Your task to perform on an android device: change the clock display to show seconds Image 0: 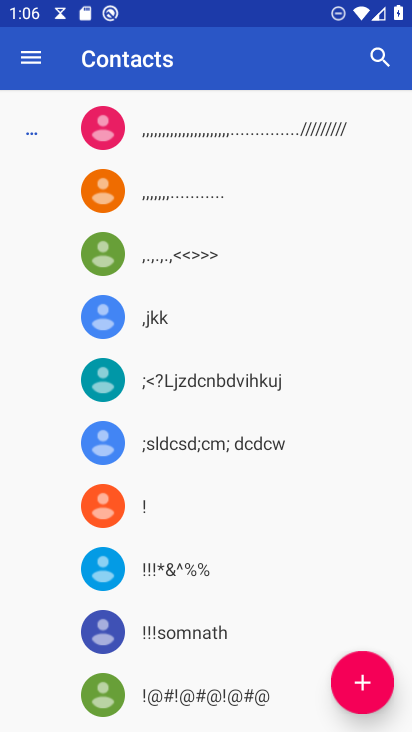
Step 0: press back button
Your task to perform on an android device: change the clock display to show seconds Image 1: 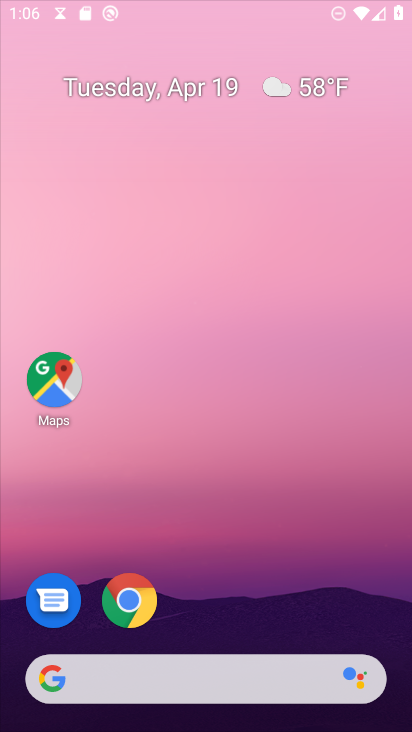
Step 1: press back button
Your task to perform on an android device: change the clock display to show seconds Image 2: 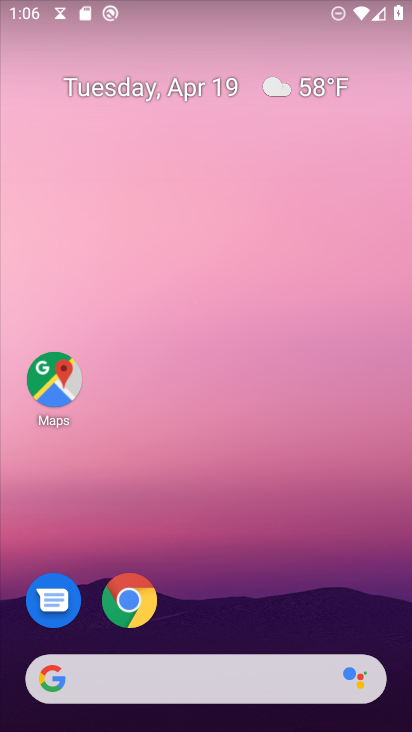
Step 2: drag from (175, 701) to (153, 210)
Your task to perform on an android device: change the clock display to show seconds Image 3: 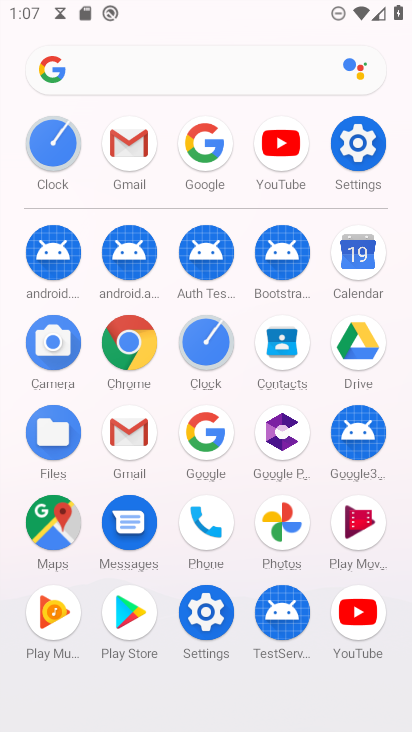
Step 3: click (213, 345)
Your task to perform on an android device: change the clock display to show seconds Image 4: 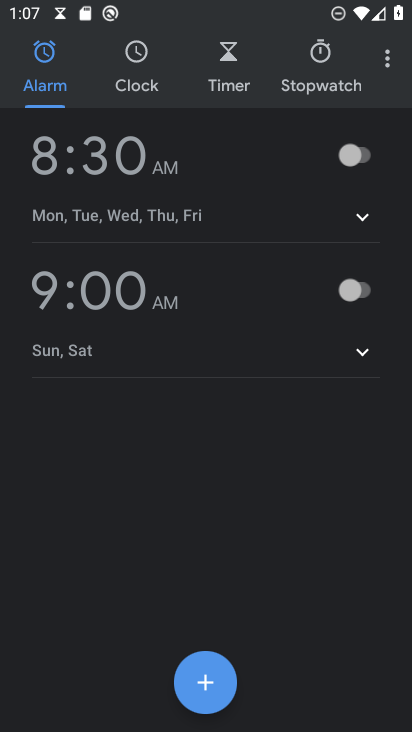
Step 4: click (379, 65)
Your task to perform on an android device: change the clock display to show seconds Image 5: 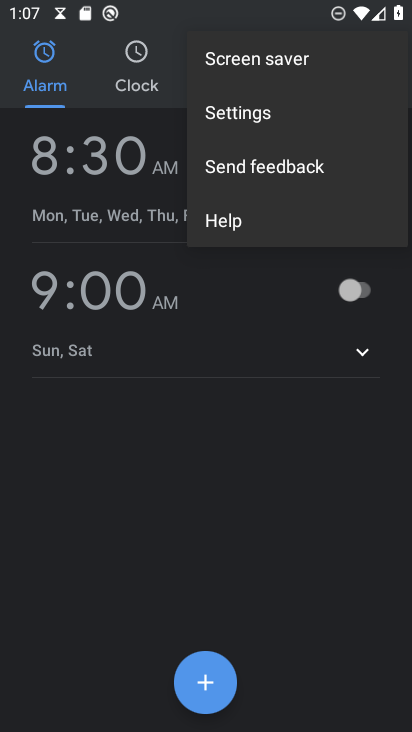
Step 5: click (288, 113)
Your task to perform on an android device: change the clock display to show seconds Image 6: 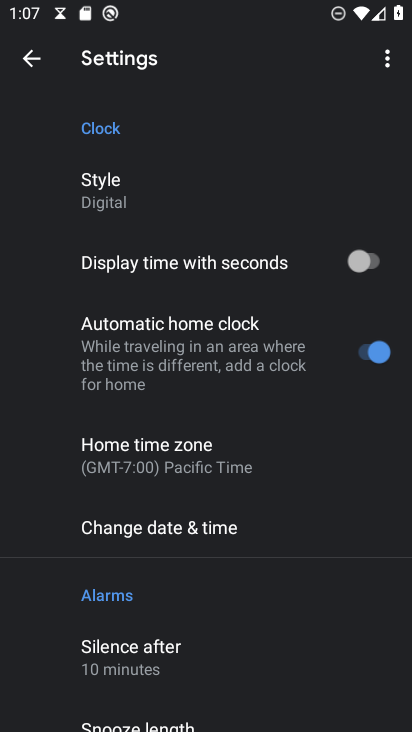
Step 6: click (113, 198)
Your task to perform on an android device: change the clock display to show seconds Image 7: 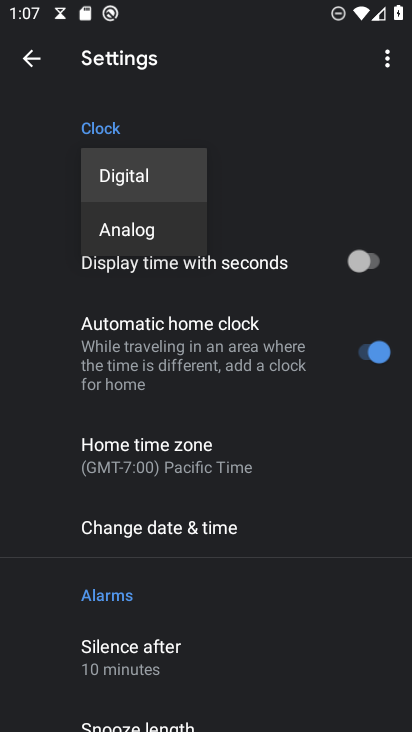
Step 7: click (354, 259)
Your task to perform on an android device: change the clock display to show seconds Image 8: 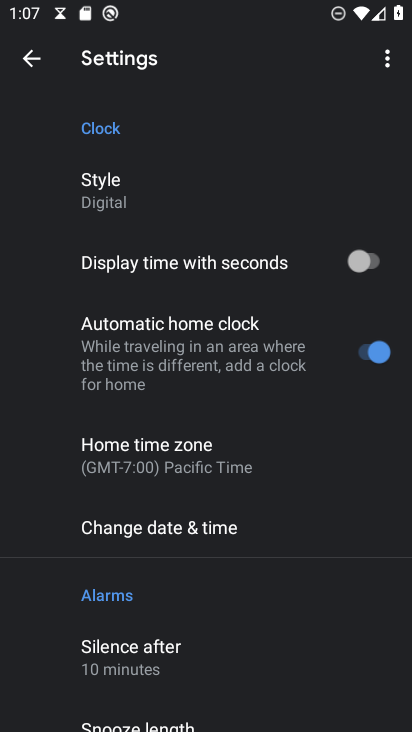
Step 8: click (354, 259)
Your task to perform on an android device: change the clock display to show seconds Image 9: 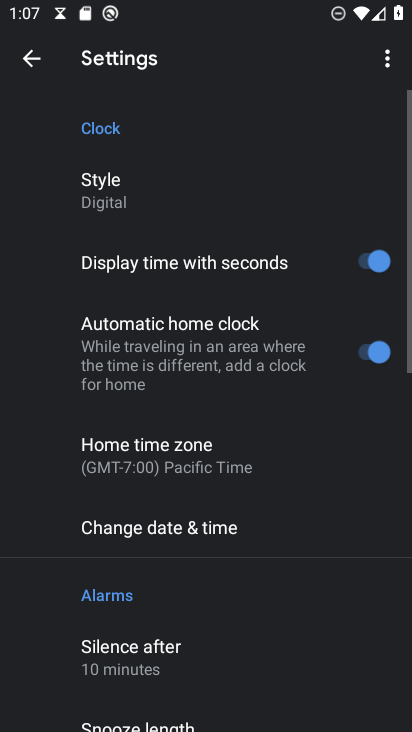
Step 9: task complete